Your task to perform on an android device: open chrome privacy settings Image 0: 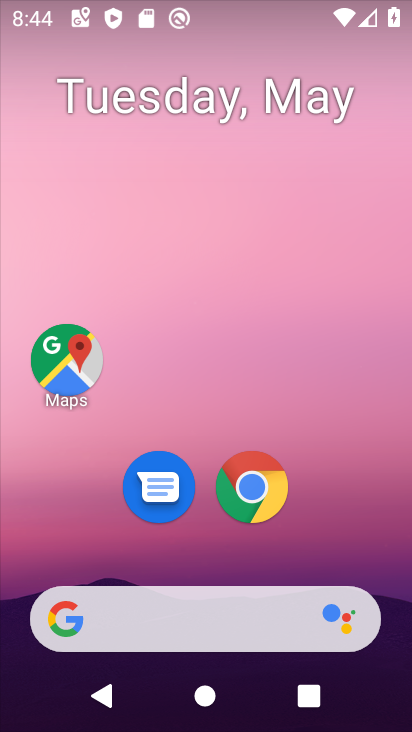
Step 0: drag from (374, 547) to (359, 214)
Your task to perform on an android device: open chrome privacy settings Image 1: 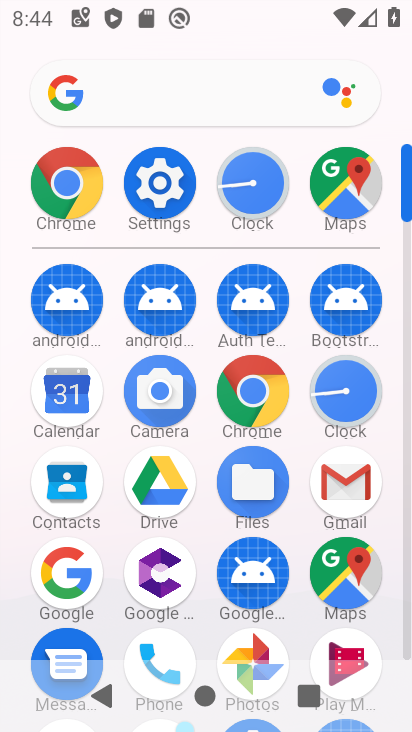
Step 1: click (264, 405)
Your task to perform on an android device: open chrome privacy settings Image 2: 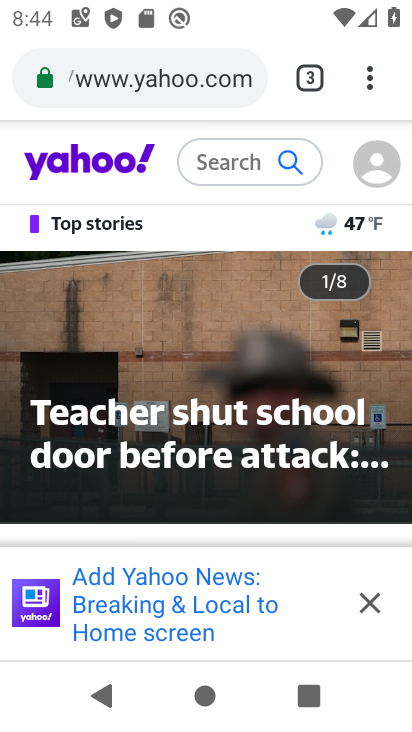
Step 2: click (366, 88)
Your task to perform on an android device: open chrome privacy settings Image 3: 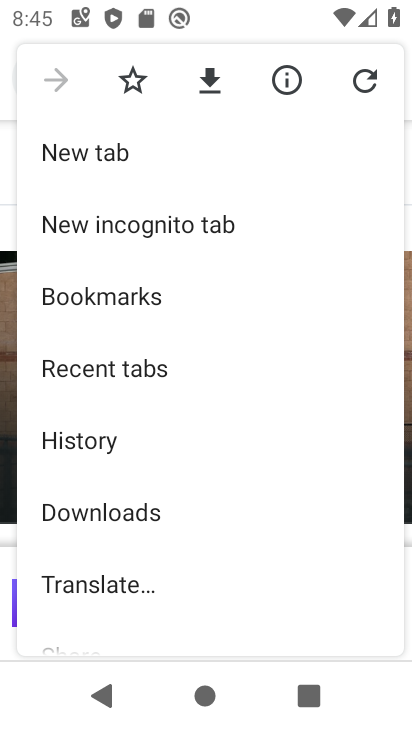
Step 3: drag from (319, 392) to (322, 297)
Your task to perform on an android device: open chrome privacy settings Image 4: 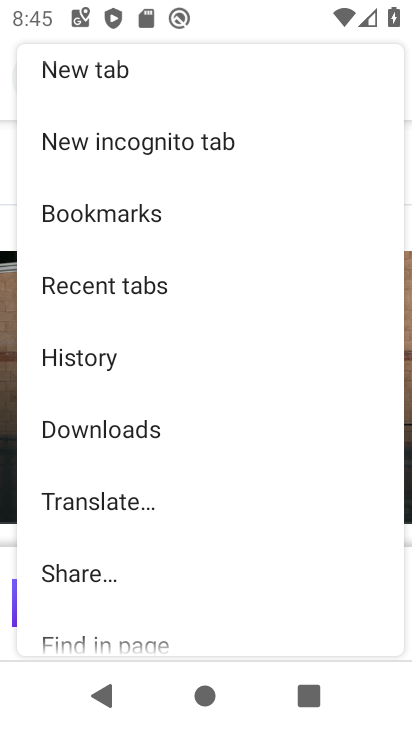
Step 4: drag from (320, 433) to (329, 340)
Your task to perform on an android device: open chrome privacy settings Image 5: 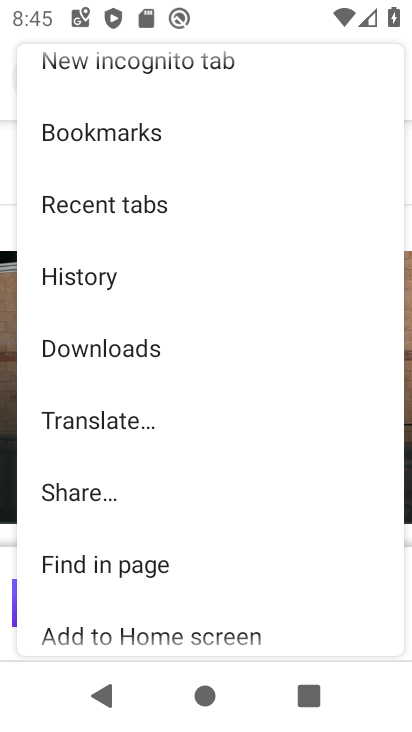
Step 5: drag from (319, 439) to (334, 351)
Your task to perform on an android device: open chrome privacy settings Image 6: 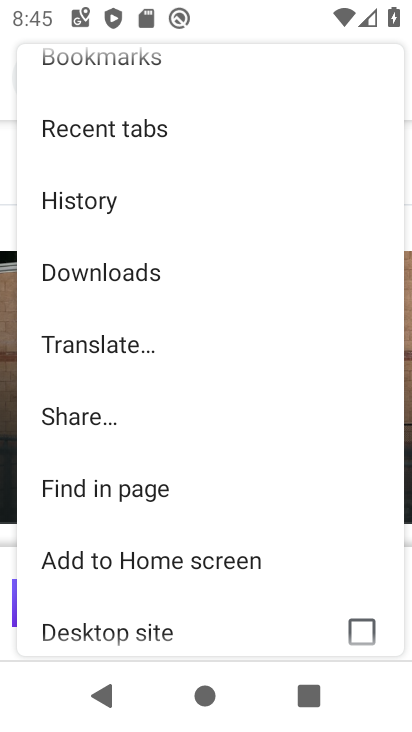
Step 6: drag from (324, 466) to (338, 348)
Your task to perform on an android device: open chrome privacy settings Image 7: 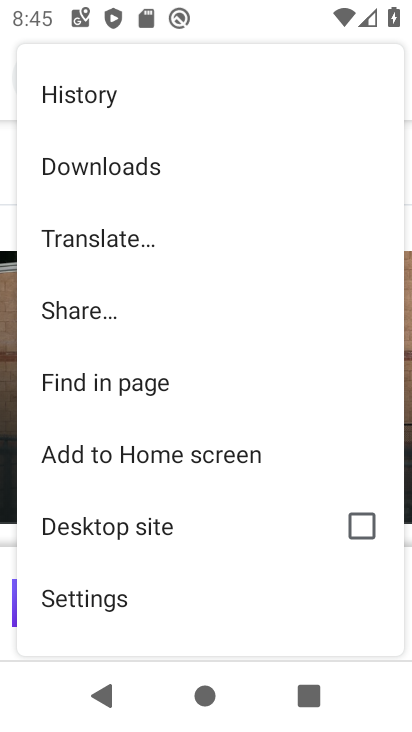
Step 7: drag from (313, 473) to (329, 353)
Your task to perform on an android device: open chrome privacy settings Image 8: 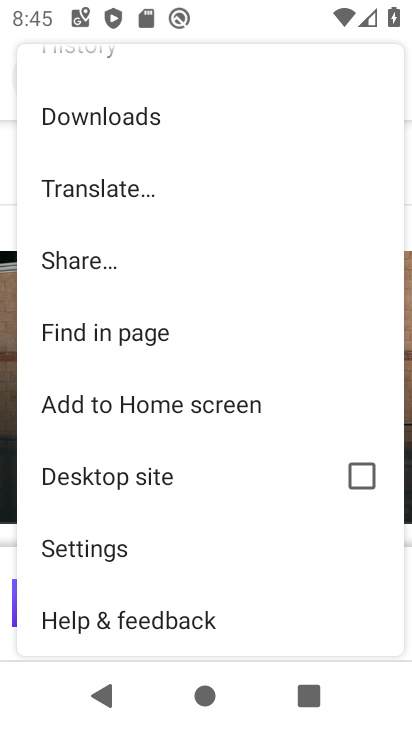
Step 8: click (139, 557)
Your task to perform on an android device: open chrome privacy settings Image 9: 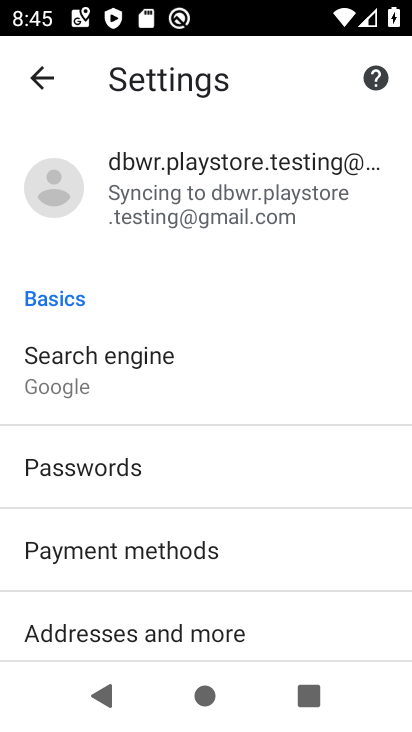
Step 9: drag from (303, 554) to (319, 442)
Your task to perform on an android device: open chrome privacy settings Image 10: 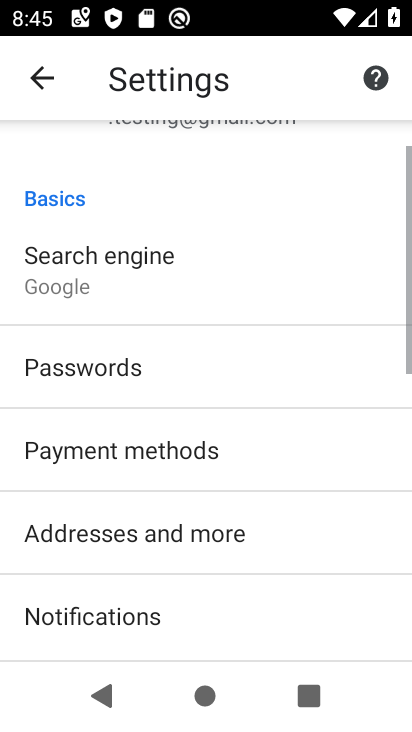
Step 10: drag from (312, 564) to (320, 446)
Your task to perform on an android device: open chrome privacy settings Image 11: 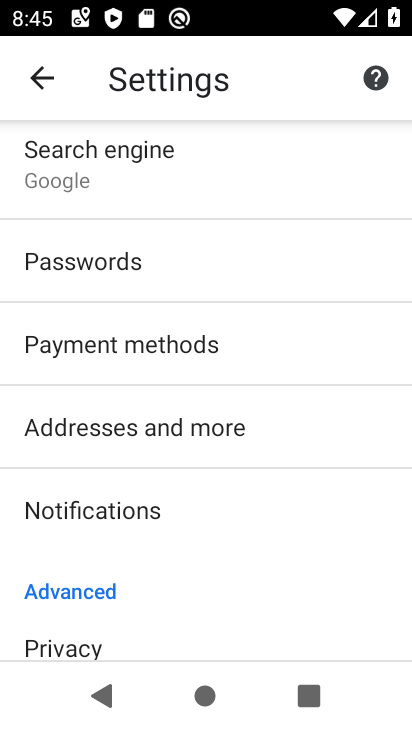
Step 11: drag from (312, 548) to (312, 397)
Your task to perform on an android device: open chrome privacy settings Image 12: 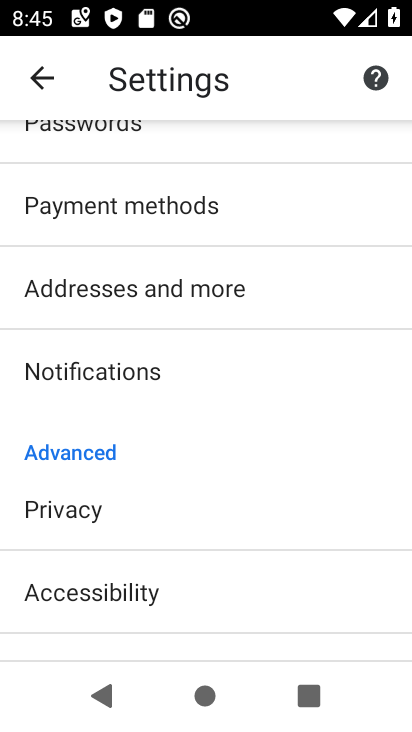
Step 12: drag from (301, 502) to (297, 390)
Your task to perform on an android device: open chrome privacy settings Image 13: 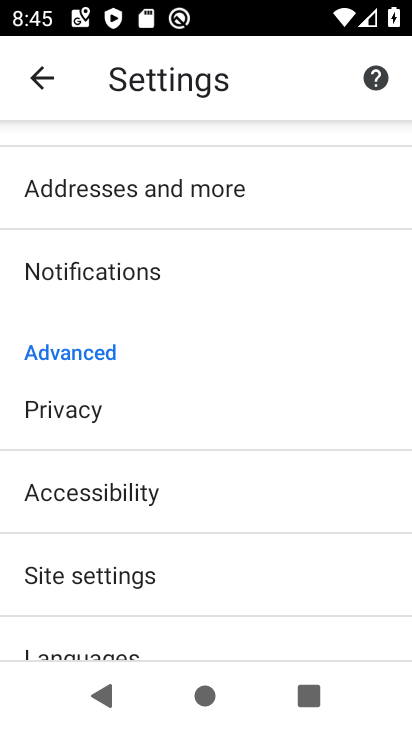
Step 13: click (110, 406)
Your task to perform on an android device: open chrome privacy settings Image 14: 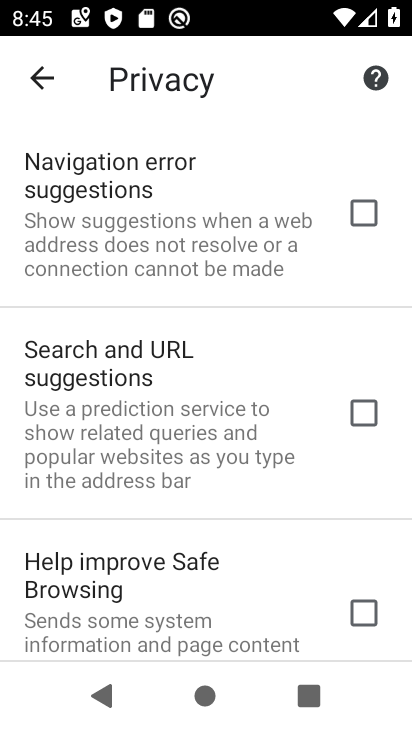
Step 14: task complete